Your task to perform on an android device: change notifications settings Image 0: 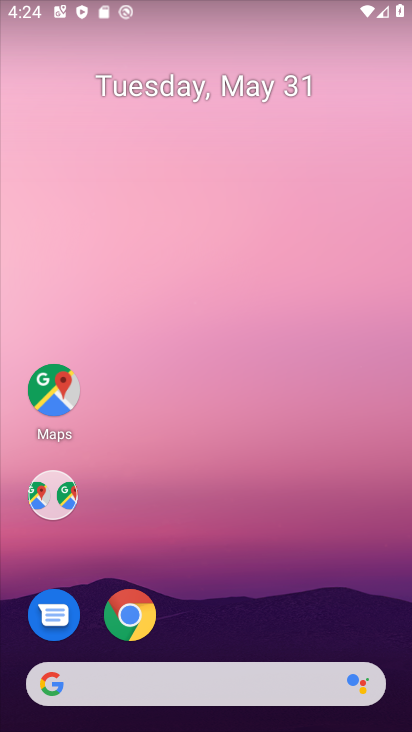
Step 0: drag from (289, 692) to (152, 167)
Your task to perform on an android device: change notifications settings Image 1: 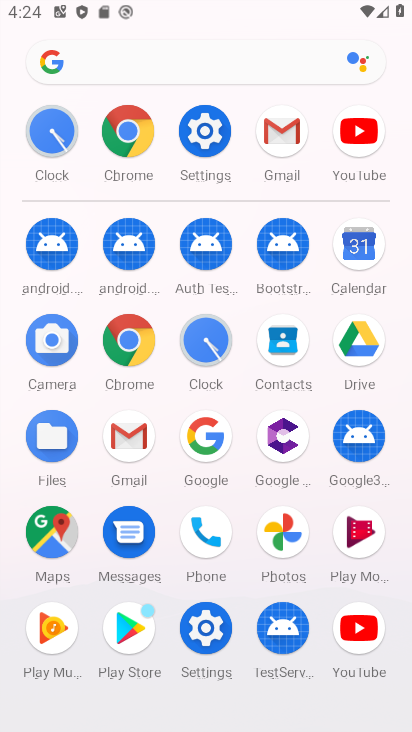
Step 1: click (297, 561)
Your task to perform on an android device: change notifications settings Image 2: 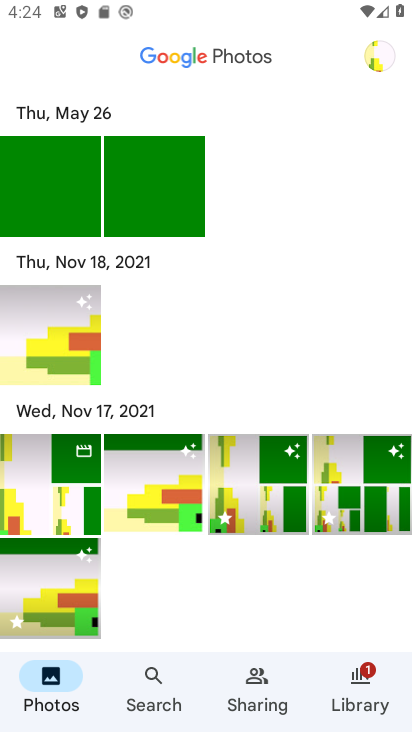
Step 2: press back button
Your task to perform on an android device: change notifications settings Image 3: 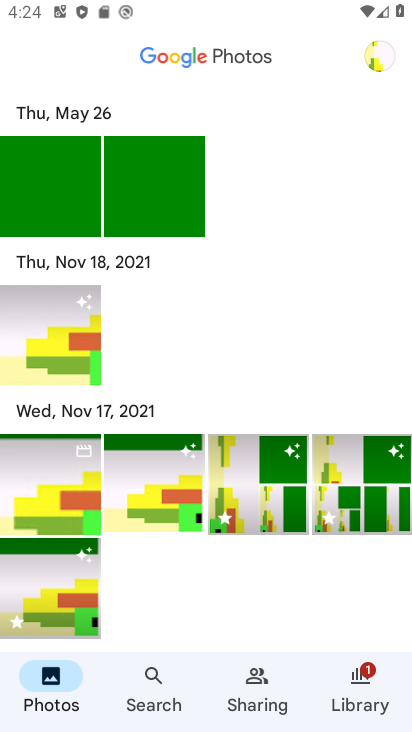
Step 3: press back button
Your task to perform on an android device: change notifications settings Image 4: 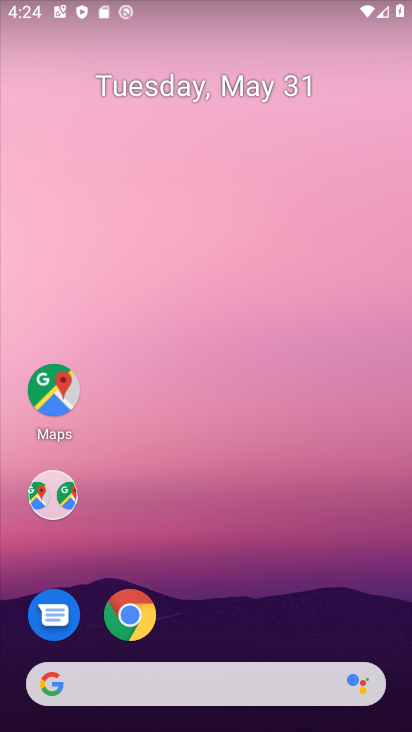
Step 4: drag from (295, 709) to (137, 58)
Your task to perform on an android device: change notifications settings Image 5: 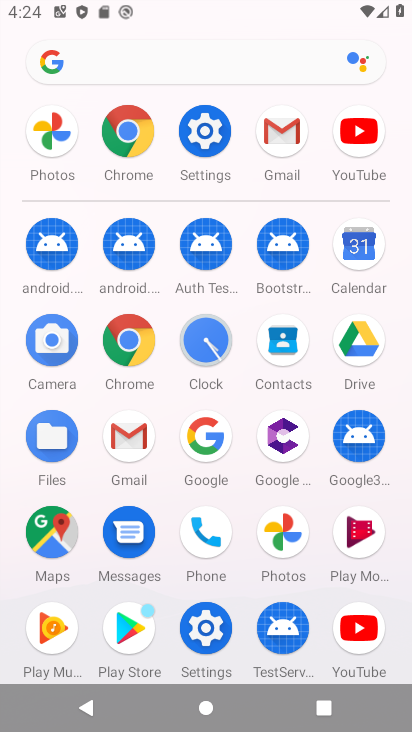
Step 5: click (209, 621)
Your task to perform on an android device: change notifications settings Image 6: 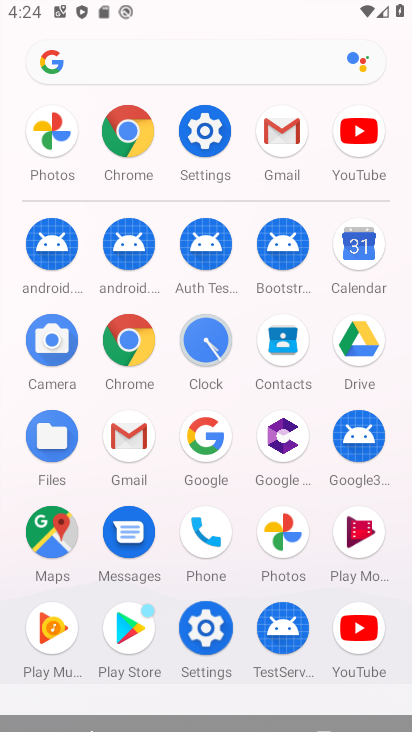
Step 6: click (209, 621)
Your task to perform on an android device: change notifications settings Image 7: 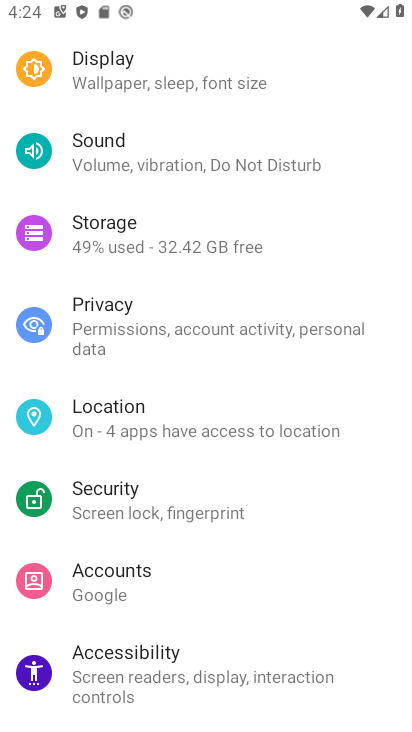
Step 7: drag from (183, 202) to (241, 560)
Your task to perform on an android device: change notifications settings Image 8: 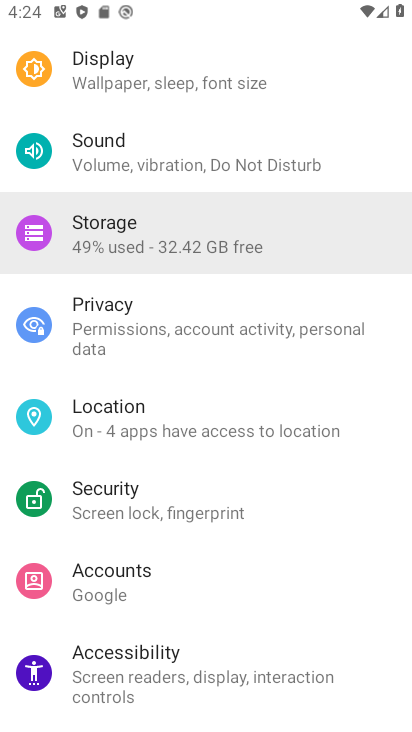
Step 8: drag from (142, 264) to (173, 496)
Your task to perform on an android device: change notifications settings Image 9: 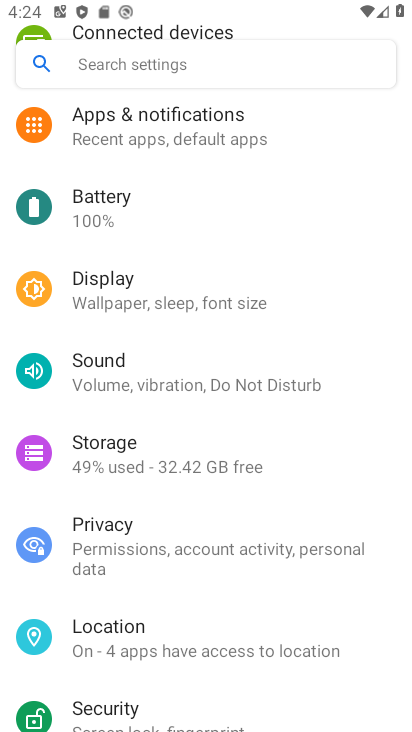
Step 9: drag from (149, 235) to (226, 529)
Your task to perform on an android device: change notifications settings Image 10: 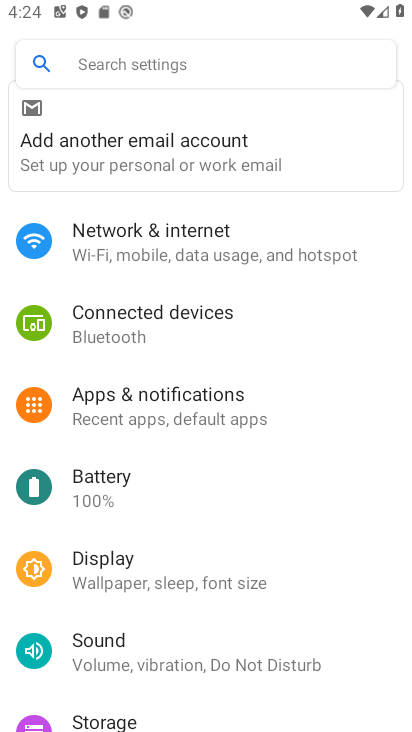
Step 10: drag from (227, 264) to (259, 577)
Your task to perform on an android device: change notifications settings Image 11: 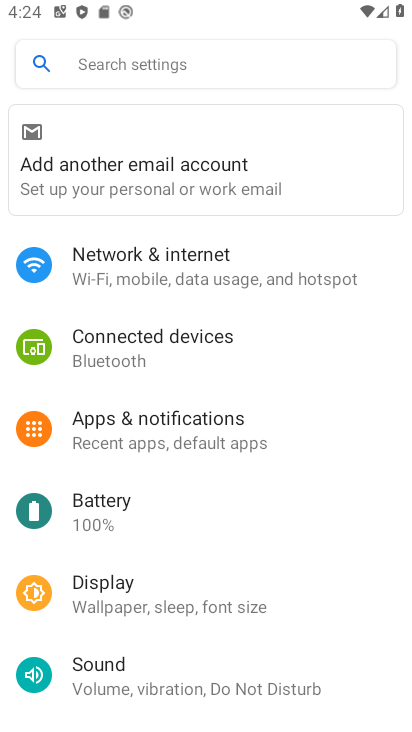
Step 11: click (142, 434)
Your task to perform on an android device: change notifications settings Image 12: 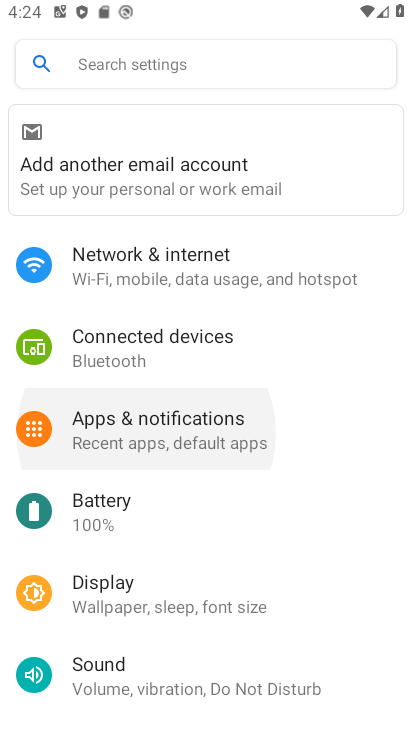
Step 12: click (143, 434)
Your task to perform on an android device: change notifications settings Image 13: 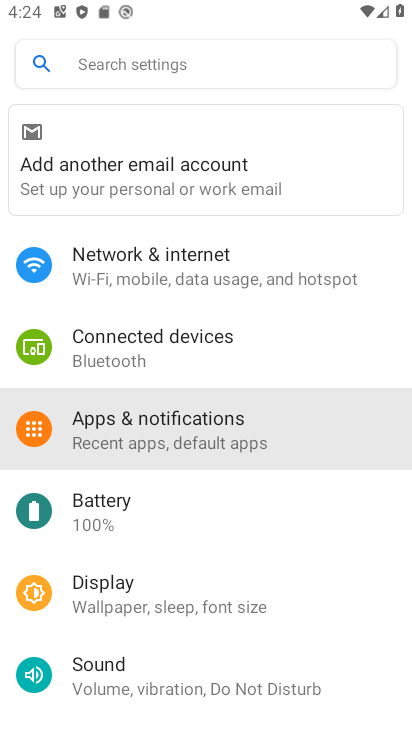
Step 13: click (144, 435)
Your task to perform on an android device: change notifications settings Image 14: 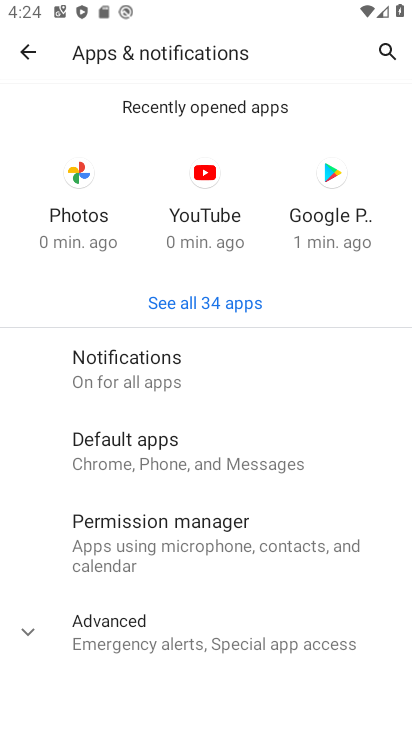
Step 14: click (131, 358)
Your task to perform on an android device: change notifications settings Image 15: 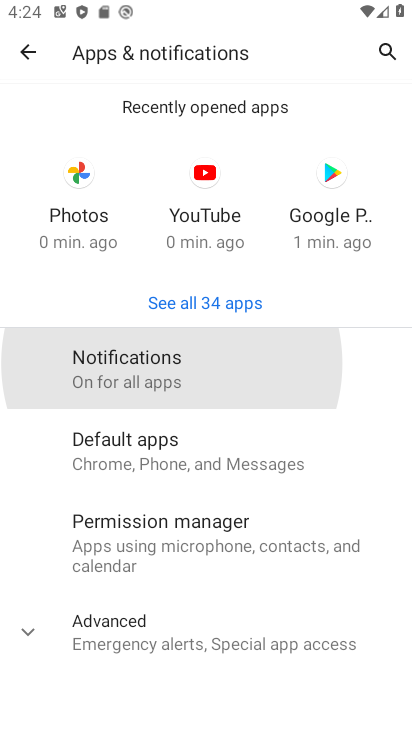
Step 15: click (134, 356)
Your task to perform on an android device: change notifications settings Image 16: 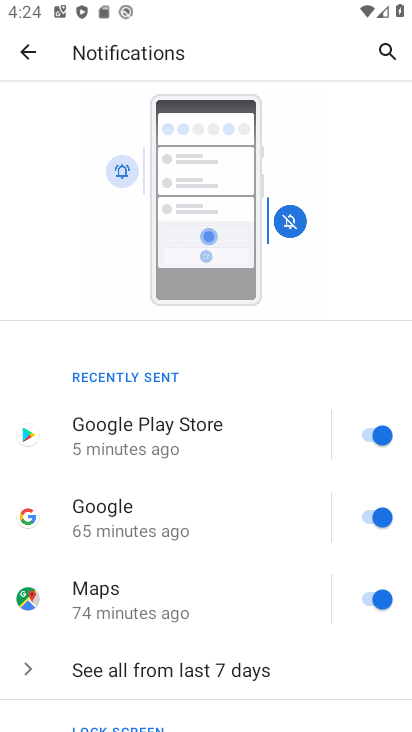
Step 16: task complete